Your task to perform on an android device: turn off airplane mode Image 0: 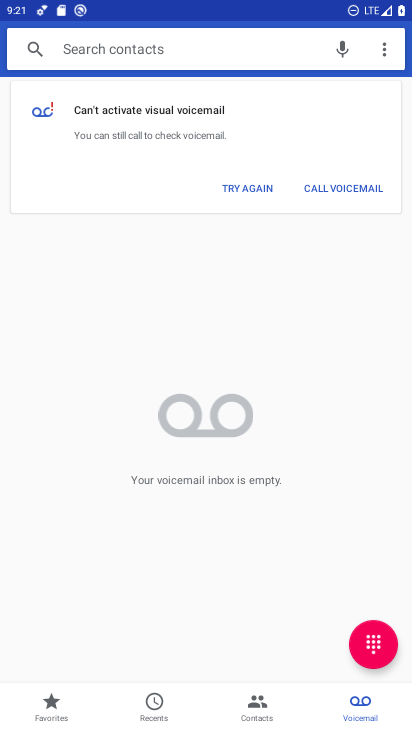
Step 0: drag from (220, 428) to (216, 361)
Your task to perform on an android device: turn off airplane mode Image 1: 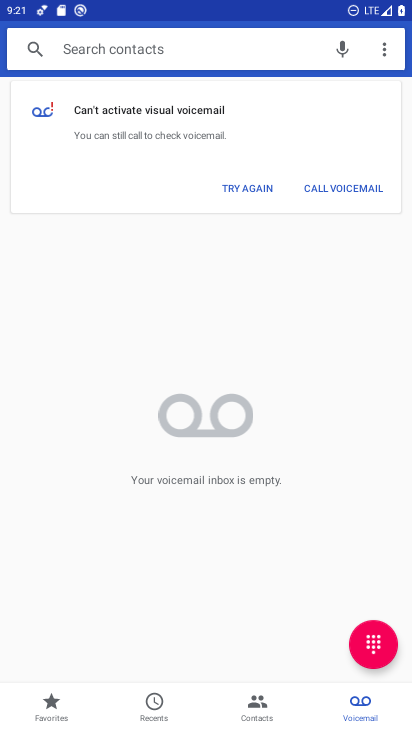
Step 1: press home button
Your task to perform on an android device: turn off airplane mode Image 2: 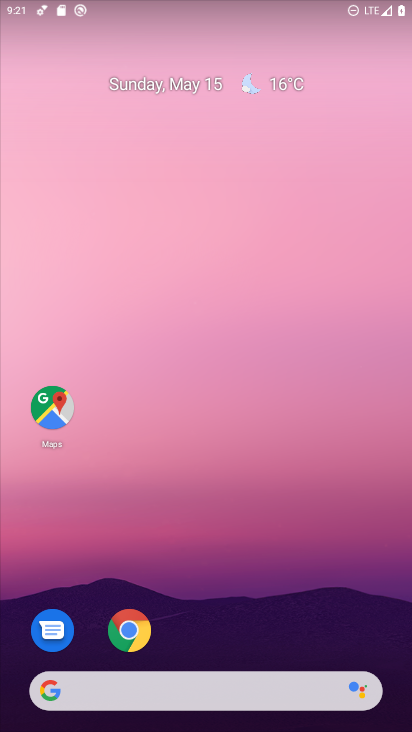
Step 2: drag from (224, 613) to (280, 399)
Your task to perform on an android device: turn off airplane mode Image 3: 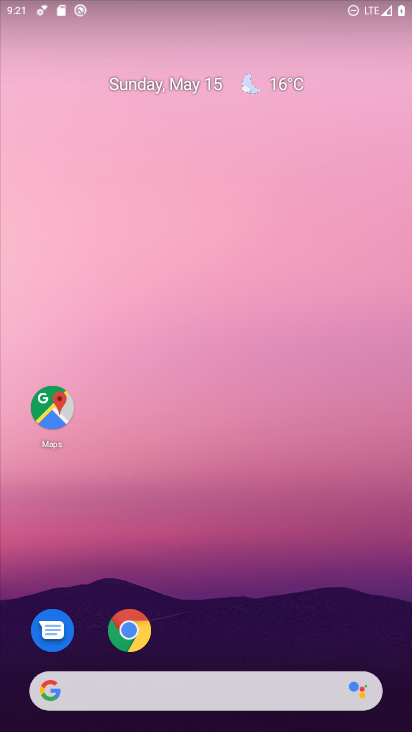
Step 3: drag from (271, 616) to (318, 117)
Your task to perform on an android device: turn off airplane mode Image 4: 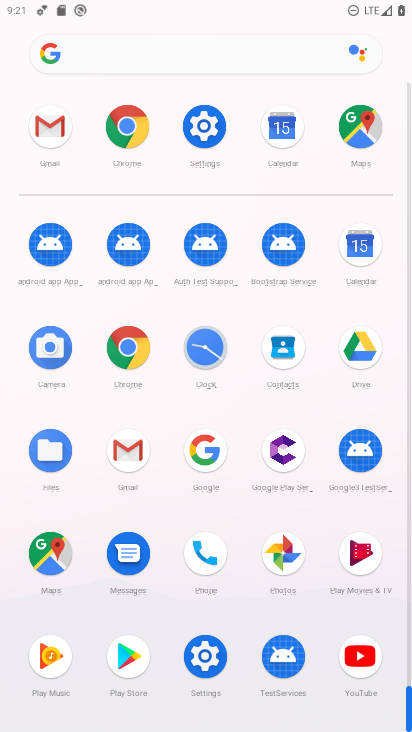
Step 4: click (190, 124)
Your task to perform on an android device: turn off airplane mode Image 5: 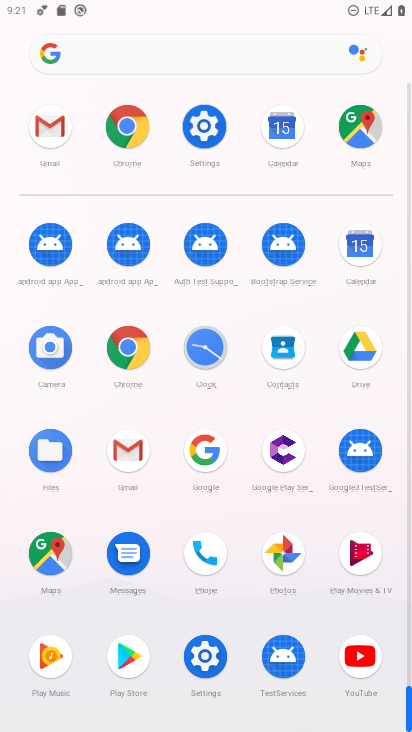
Step 5: click (190, 124)
Your task to perform on an android device: turn off airplane mode Image 6: 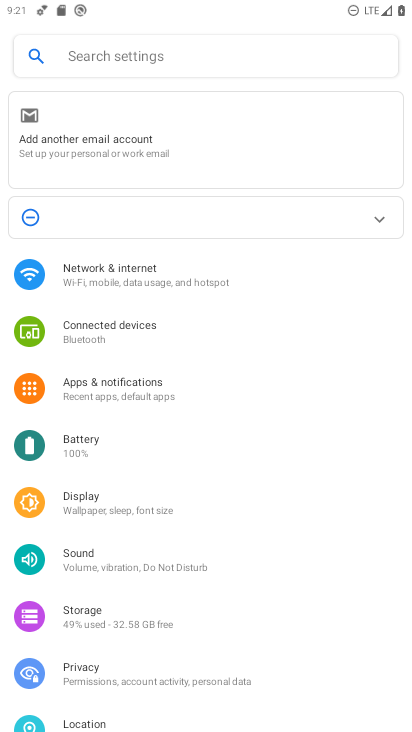
Step 6: click (101, 280)
Your task to perform on an android device: turn off airplane mode Image 7: 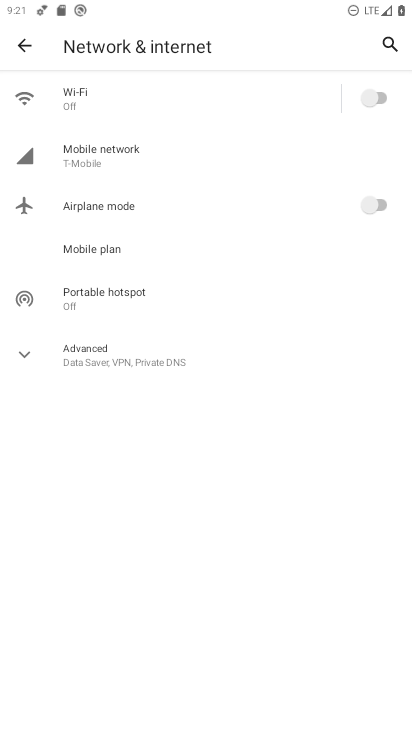
Step 7: task complete